Your task to perform on an android device: Do I have any events this weekend? Image 0: 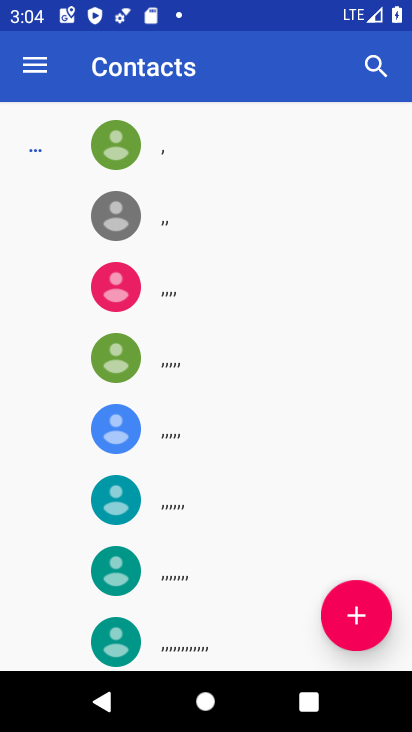
Step 0: press home button
Your task to perform on an android device: Do I have any events this weekend? Image 1: 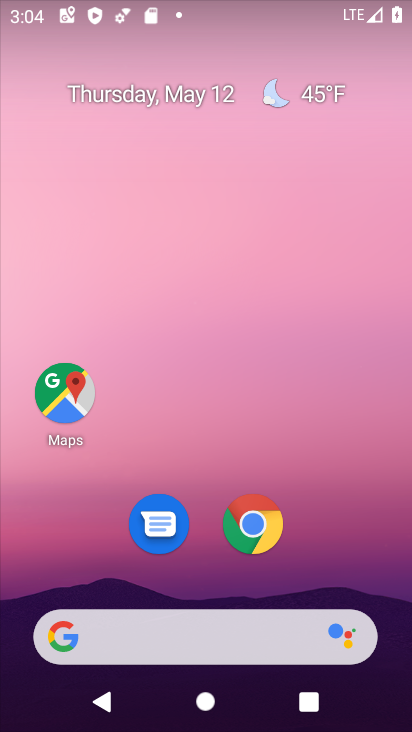
Step 1: drag from (209, 470) to (213, 59)
Your task to perform on an android device: Do I have any events this weekend? Image 2: 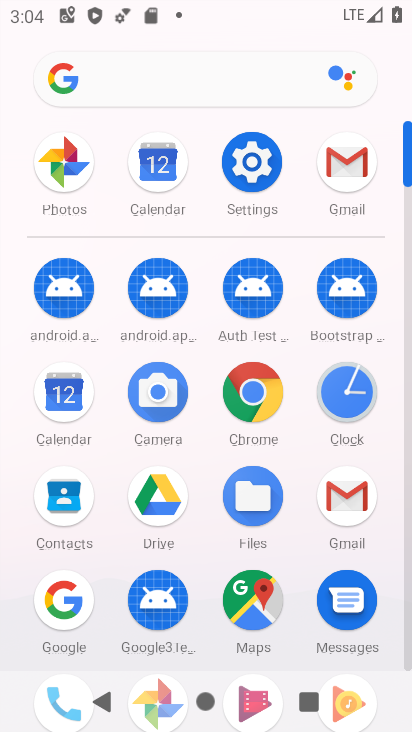
Step 2: click (169, 151)
Your task to perform on an android device: Do I have any events this weekend? Image 3: 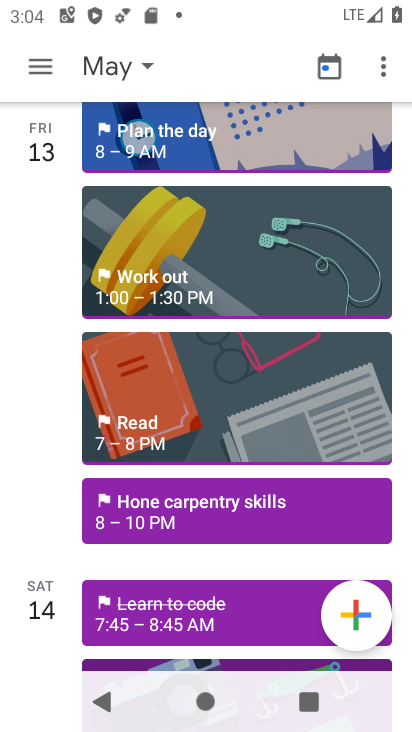
Step 3: task complete